Your task to perform on an android device: Go to Google Image 0: 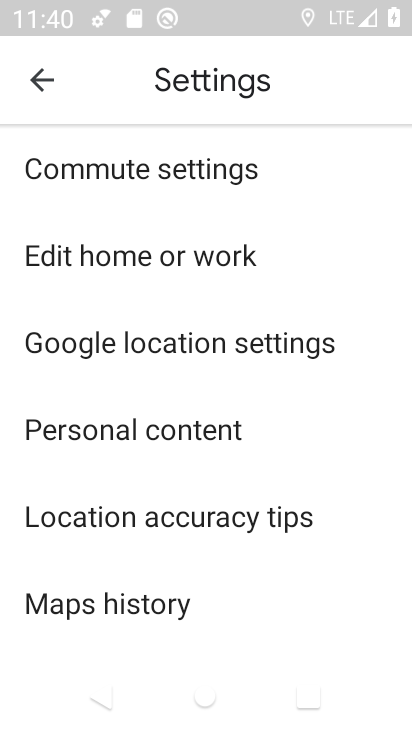
Step 0: press home button
Your task to perform on an android device: Go to Google Image 1: 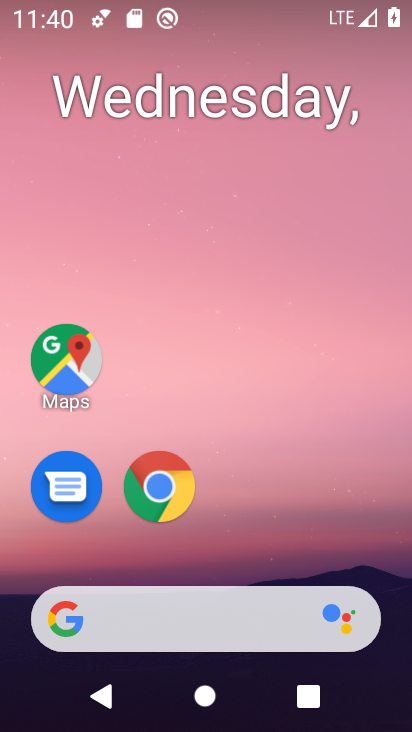
Step 1: drag from (362, 543) to (358, 16)
Your task to perform on an android device: Go to Google Image 2: 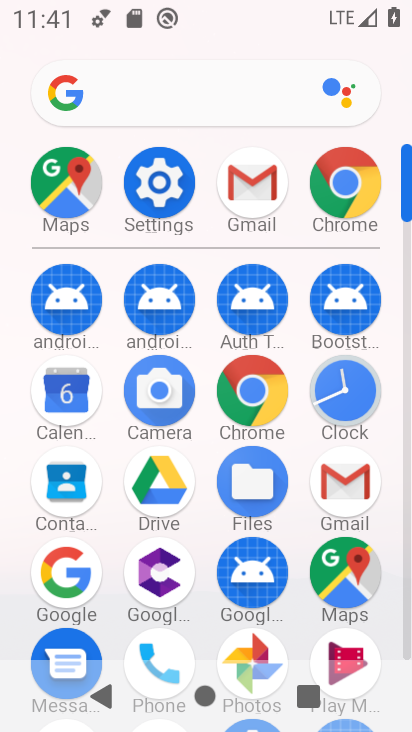
Step 2: click (76, 570)
Your task to perform on an android device: Go to Google Image 3: 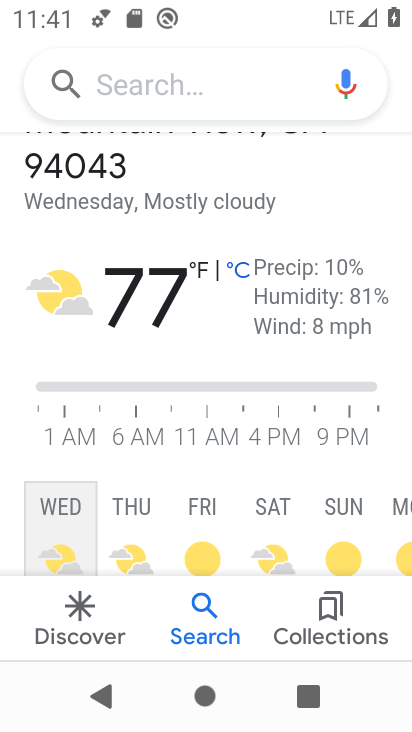
Step 3: task complete